Your task to perform on an android device: Open wifi settings Image 0: 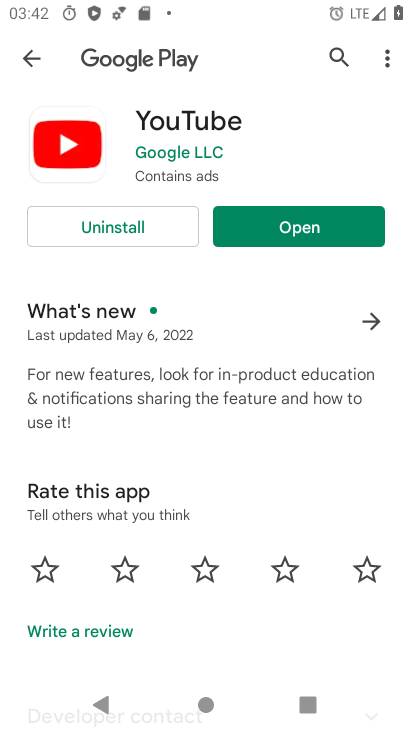
Step 0: press home button
Your task to perform on an android device: Open wifi settings Image 1: 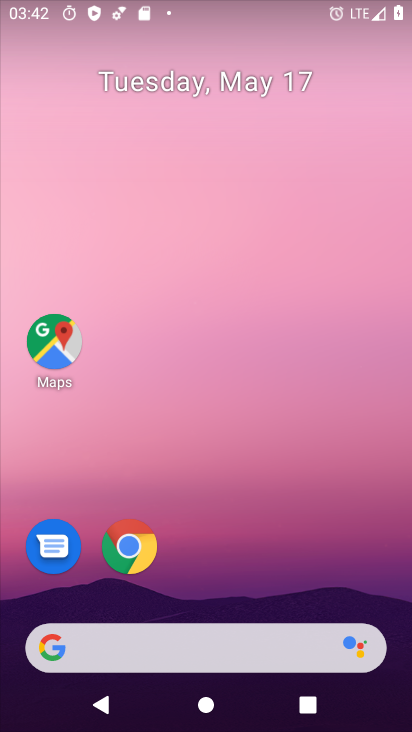
Step 1: drag from (340, 6) to (361, 211)
Your task to perform on an android device: Open wifi settings Image 2: 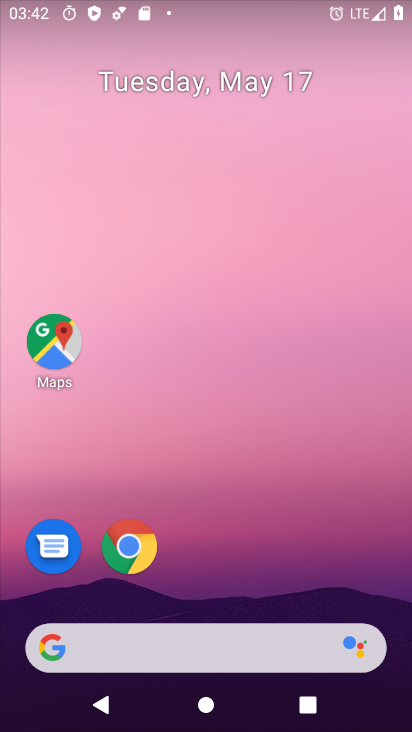
Step 2: drag from (204, 6) to (279, 593)
Your task to perform on an android device: Open wifi settings Image 3: 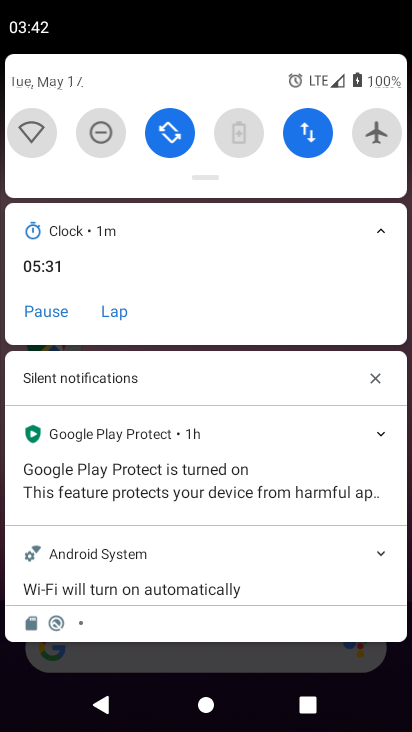
Step 3: click (32, 127)
Your task to perform on an android device: Open wifi settings Image 4: 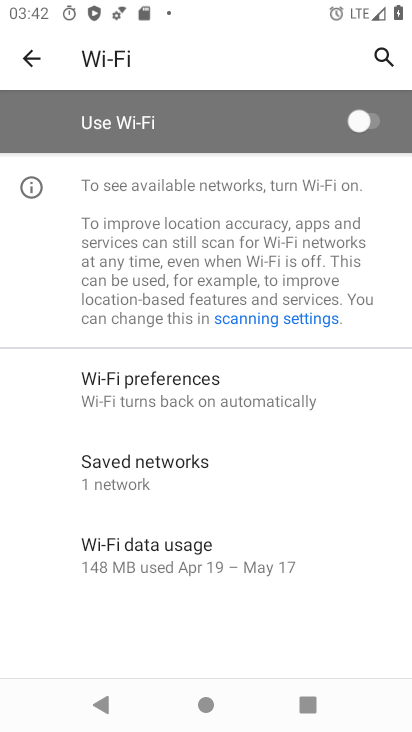
Step 4: task complete